Your task to perform on an android device: Go to eBay Image 0: 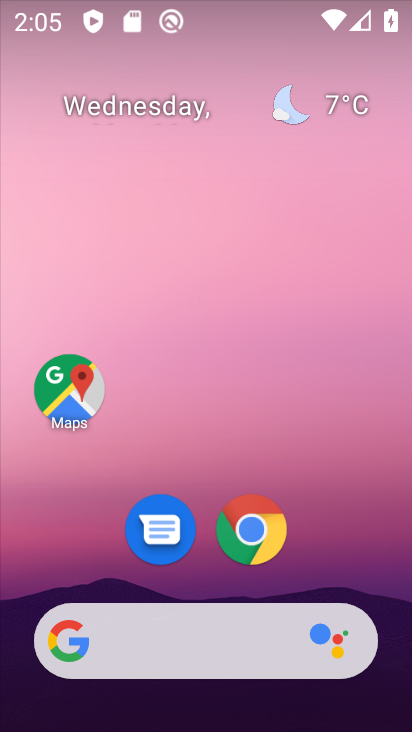
Step 0: drag from (381, 579) to (352, 108)
Your task to perform on an android device: Go to eBay Image 1: 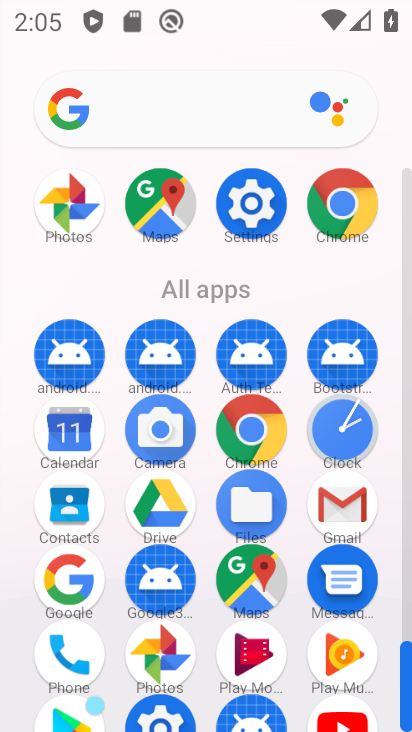
Step 1: click (339, 194)
Your task to perform on an android device: Go to eBay Image 2: 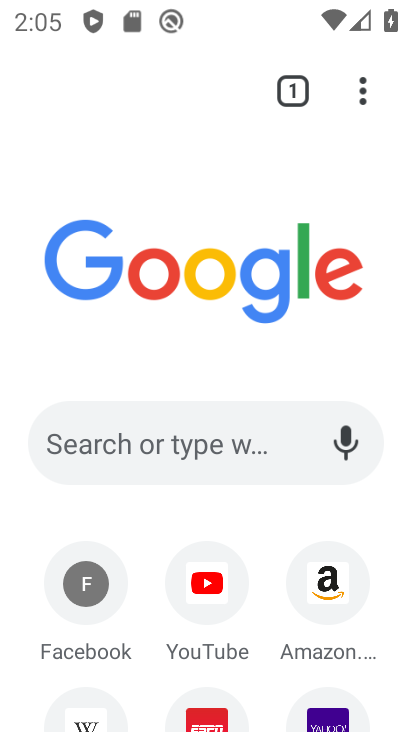
Step 2: drag from (393, 582) to (328, 149)
Your task to perform on an android device: Go to eBay Image 3: 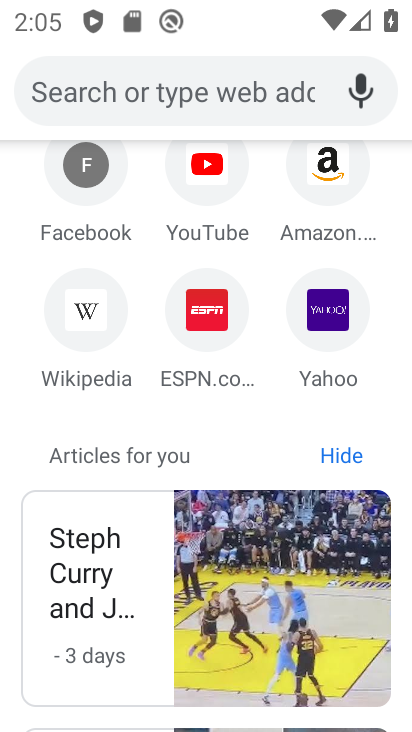
Step 3: drag from (398, 264) to (409, 466)
Your task to perform on an android device: Go to eBay Image 4: 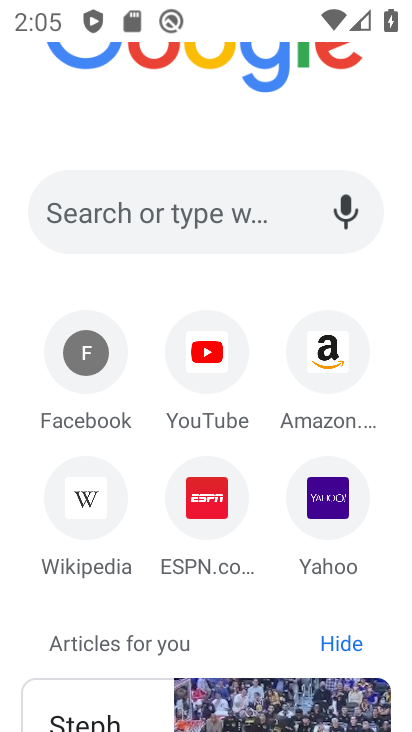
Step 4: drag from (392, 214) to (411, 461)
Your task to perform on an android device: Go to eBay Image 5: 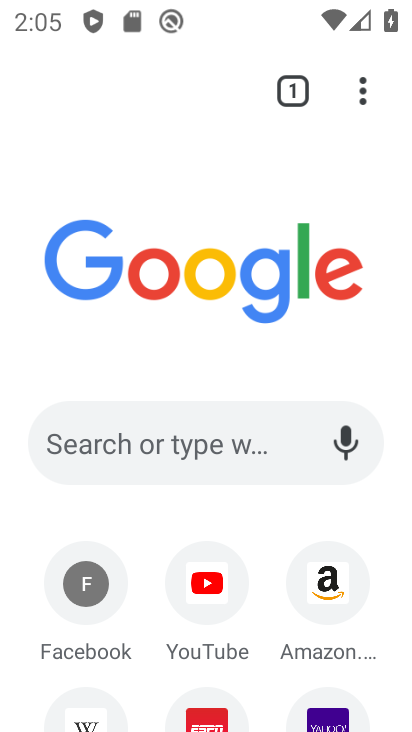
Step 5: click (190, 222)
Your task to perform on an android device: Go to eBay Image 6: 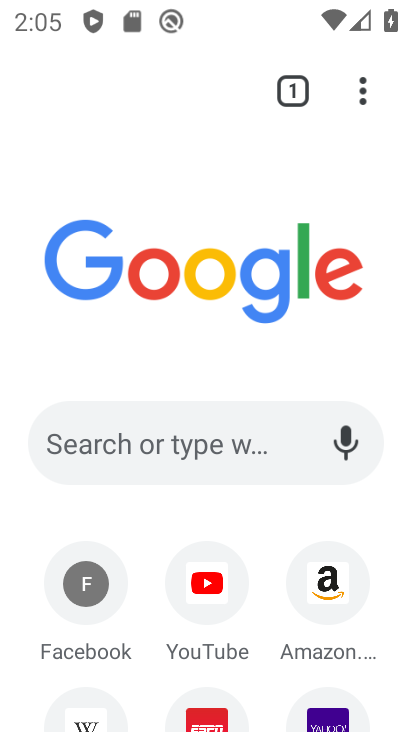
Step 6: click (210, 440)
Your task to perform on an android device: Go to eBay Image 7: 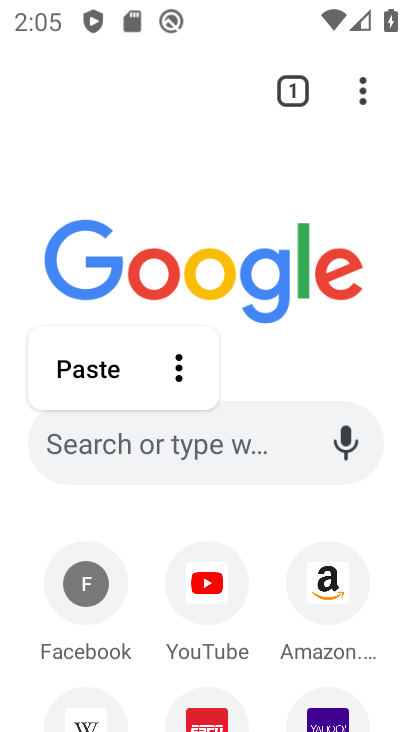
Step 7: click (170, 446)
Your task to perform on an android device: Go to eBay Image 8: 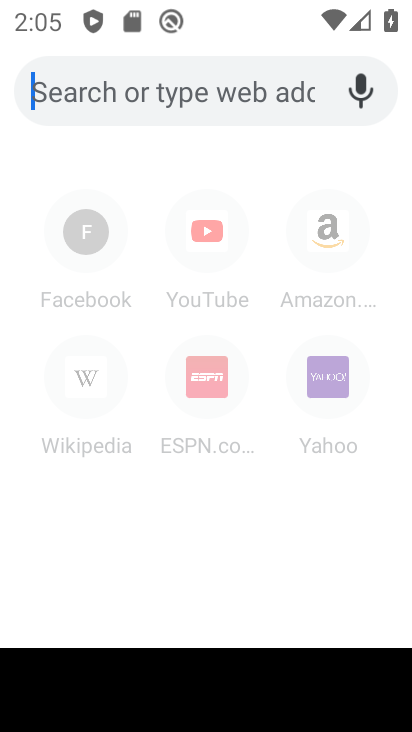
Step 8: type "ebay"
Your task to perform on an android device: Go to eBay Image 9: 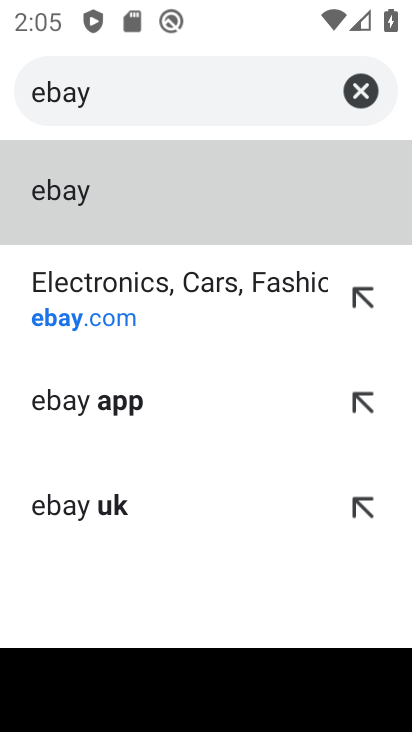
Step 9: click (173, 287)
Your task to perform on an android device: Go to eBay Image 10: 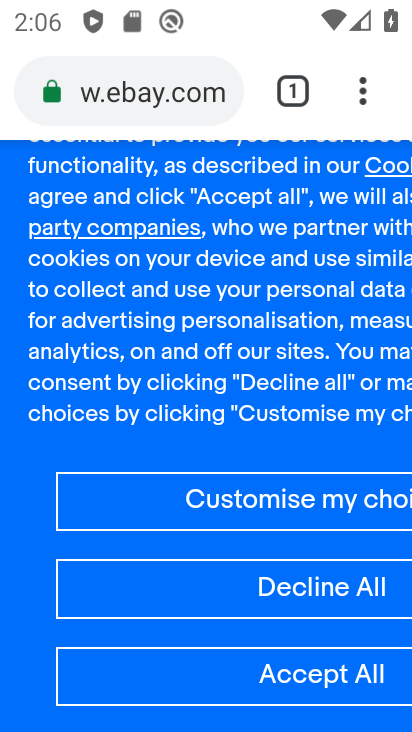
Step 10: task complete